Your task to perform on an android device: Open eBay Image 0: 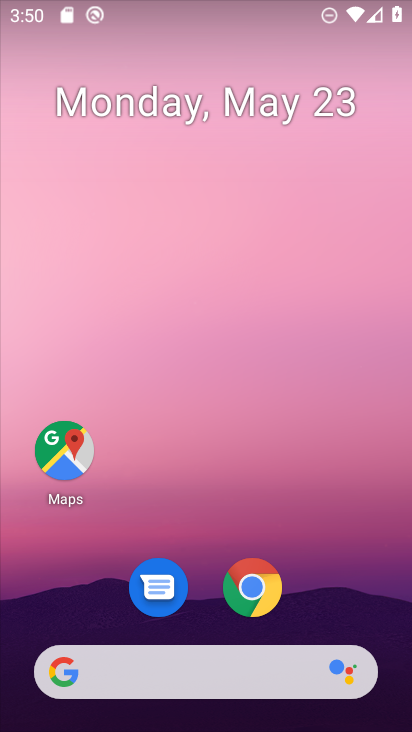
Step 0: click (200, 621)
Your task to perform on an android device: Open eBay Image 1: 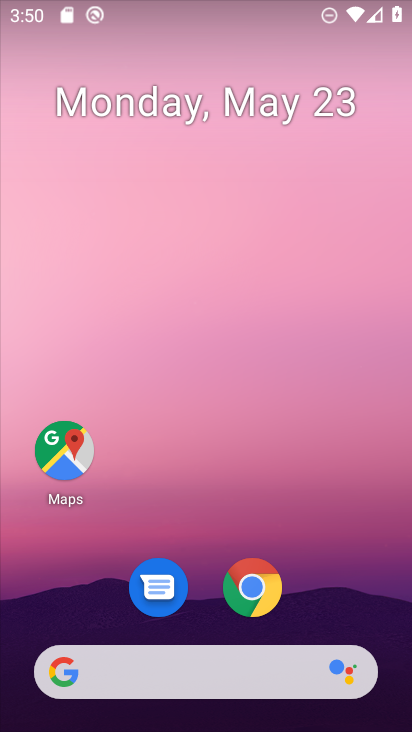
Step 1: click (254, 586)
Your task to perform on an android device: Open eBay Image 2: 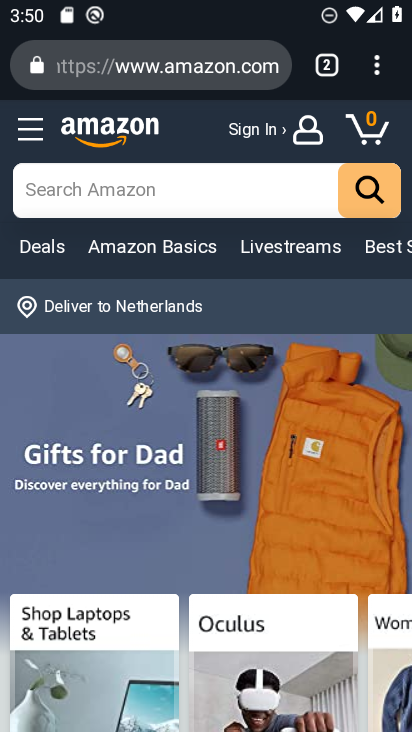
Step 2: click (200, 62)
Your task to perform on an android device: Open eBay Image 3: 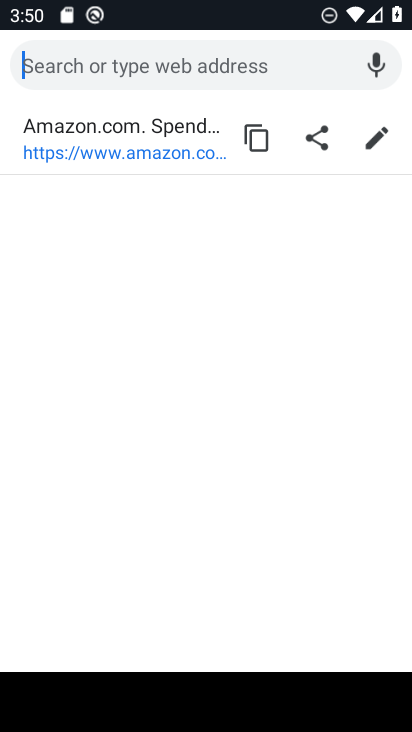
Step 3: type "eBay"
Your task to perform on an android device: Open eBay Image 4: 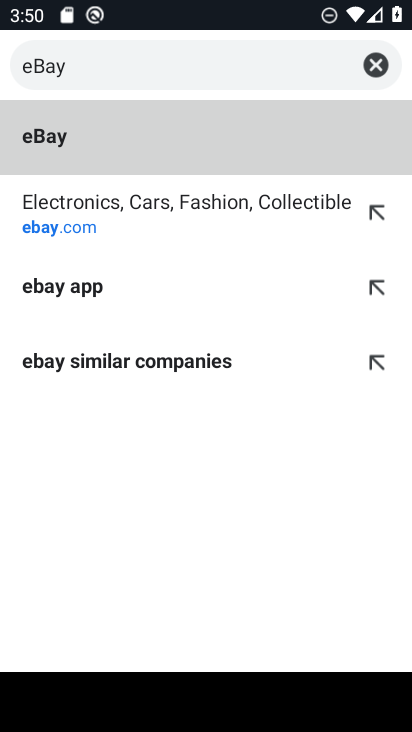
Step 4: click (115, 142)
Your task to perform on an android device: Open eBay Image 5: 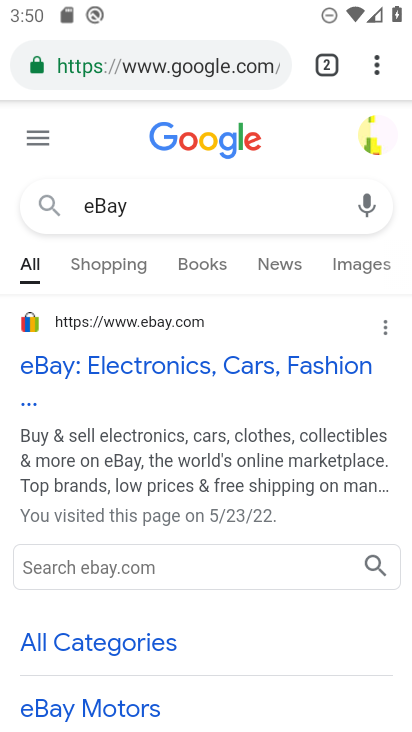
Step 5: task complete